Your task to perform on an android device: What's the weather going to be tomorrow? Image 0: 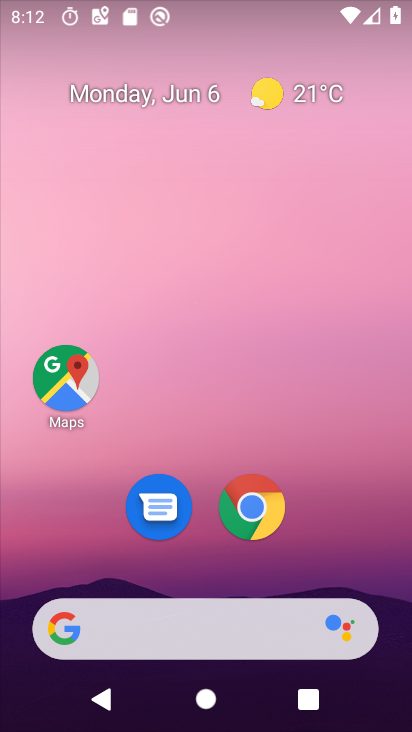
Step 0: press home button
Your task to perform on an android device: What's the weather going to be tomorrow? Image 1: 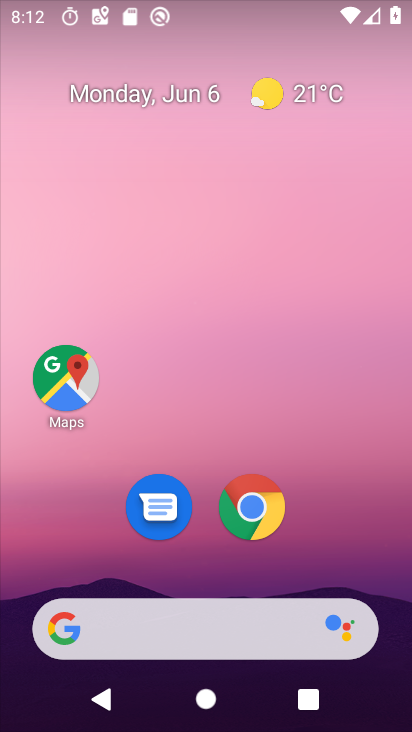
Step 1: drag from (388, 605) to (315, 137)
Your task to perform on an android device: What's the weather going to be tomorrow? Image 2: 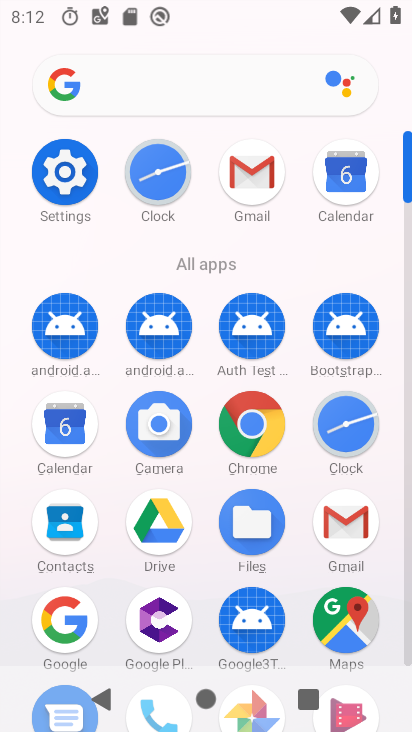
Step 2: click (254, 426)
Your task to perform on an android device: What's the weather going to be tomorrow? Image 3: 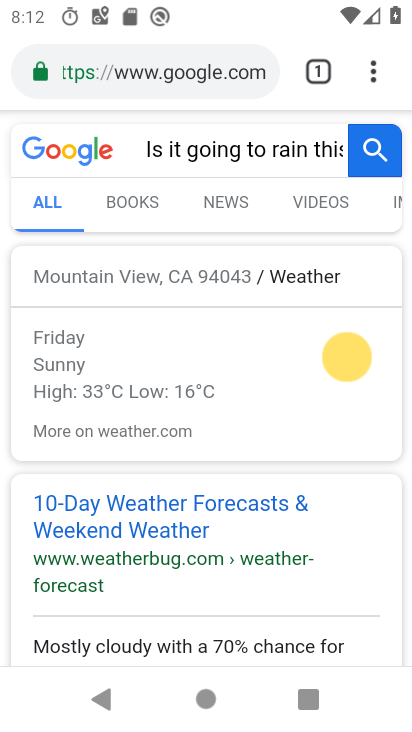
Step 3: click (213, 78)
Your task to perform on an android device: What's the weather going to be tomorrow? Image 4: 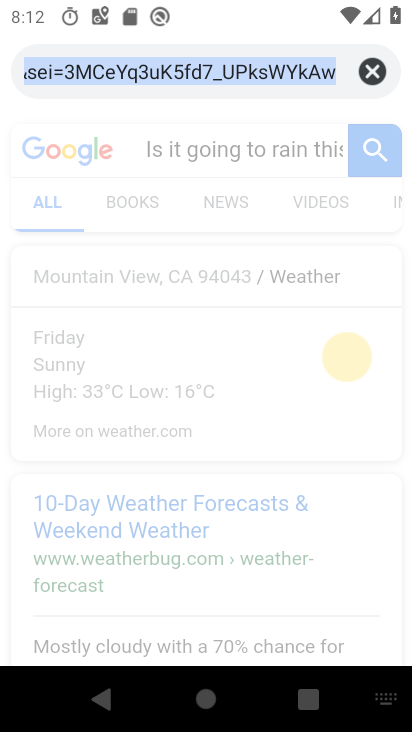
Step 4: type "What's the weather going to be tomorrow?"
Your task to perform on an android device: What's the weather going to be tomorrow? Image 5: 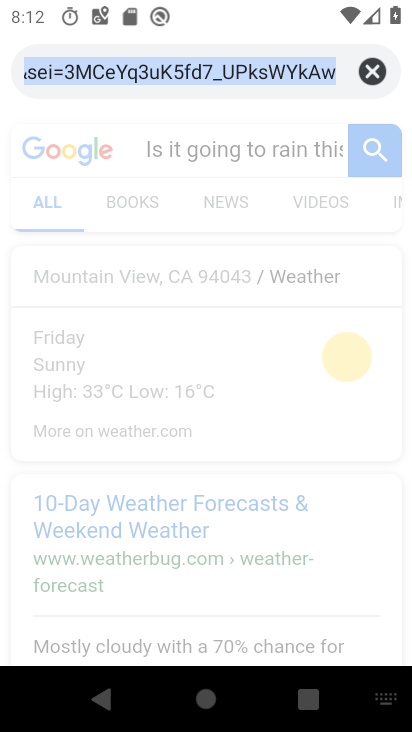
Step 5: click (286, 106)
Your task to perform on an android device: What's the weather going to be tomorrow? Image 6: 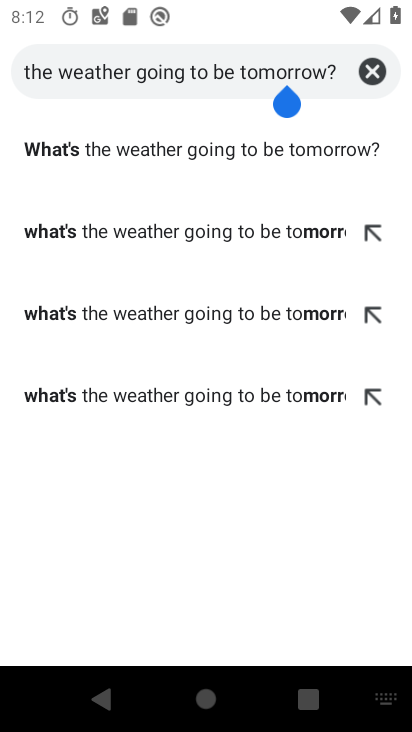
Step 6: click (293, 153)
Your task to perform on an android device: What's the weather going to be tomorrow? Image 7: 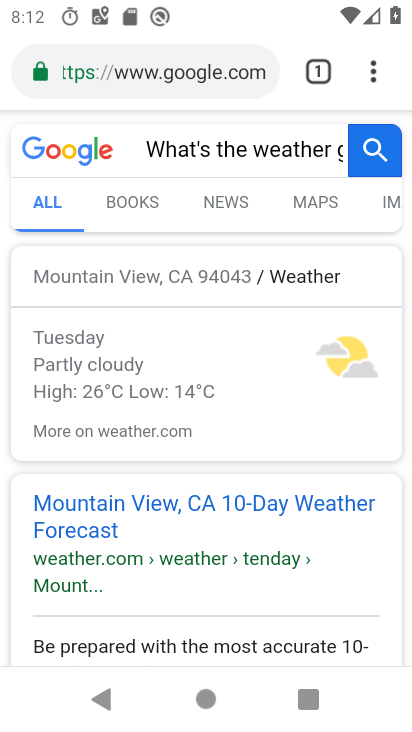
Step 7: task complete